Your task to perform on an android device: Clear the cart on amazon.com. Image 0: 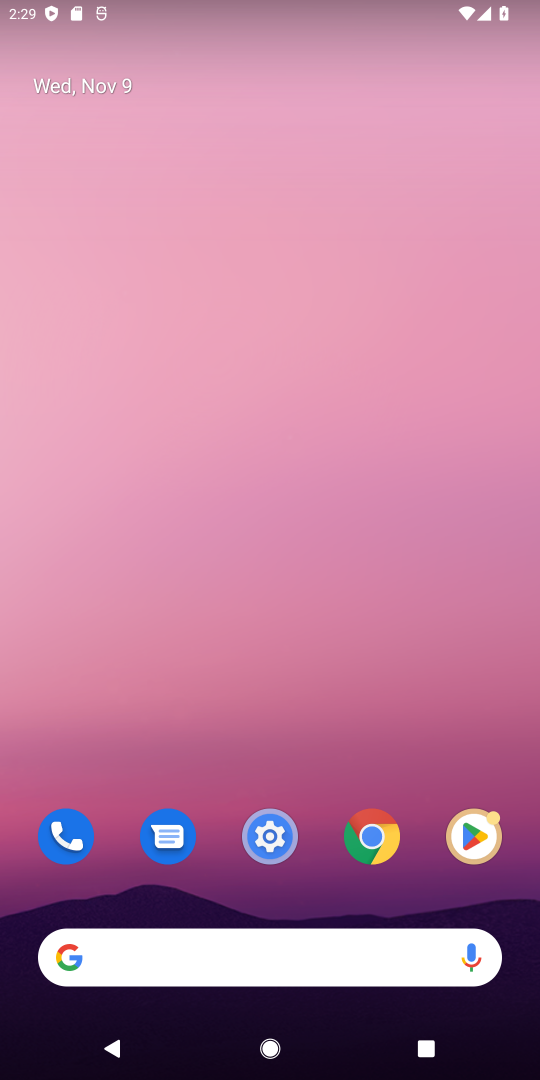
Step 0: click (373, 831)
Your task to perform on an android device: Clear the cart on amazon.com. Image 1: 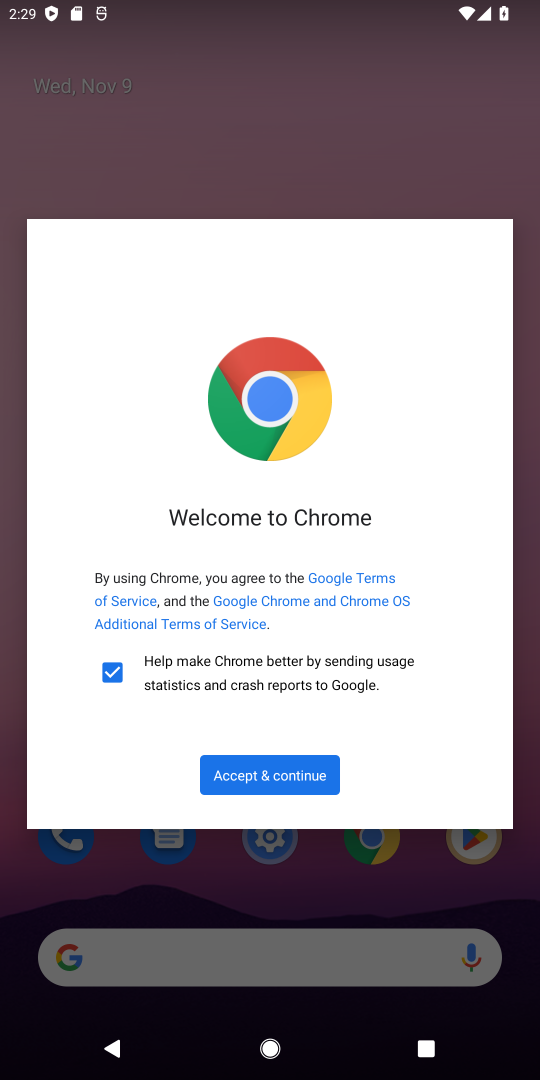
Step 1: click (291, 785)
Your task to perform on an android device: Clear the cart on amazon.com. Image 2: 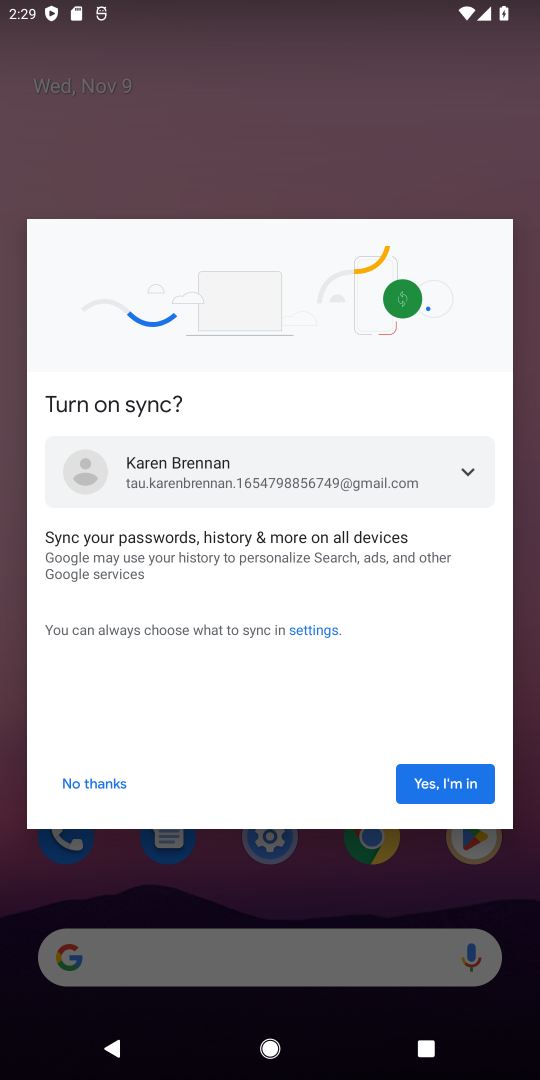
Step 2: click (415, 787)
Your task to perform on an android device: Clear the cart on amazon.com. Image 3: 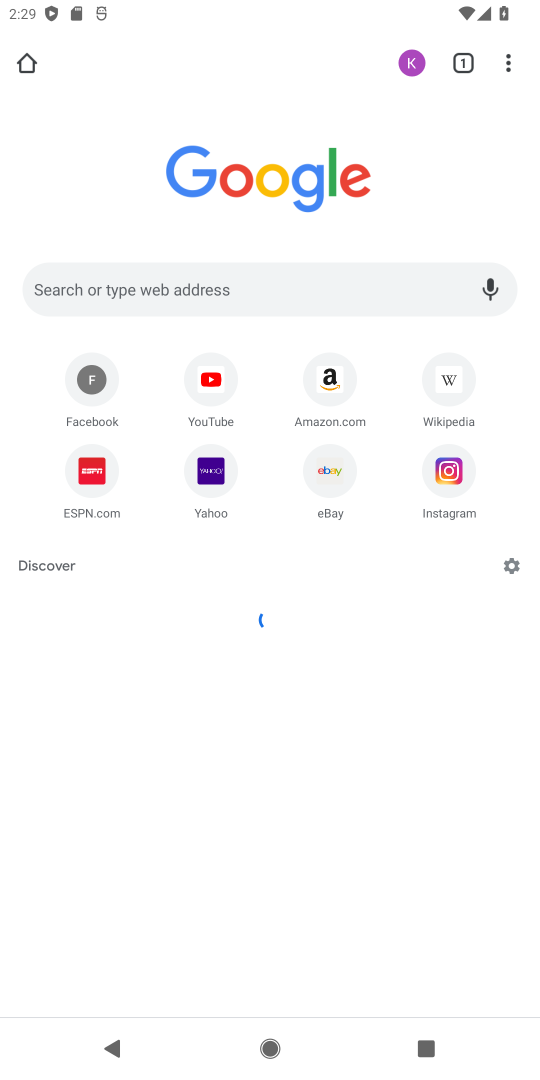
Step 3: click (234, 275)
Your task to perform on an android device: Clear the cart on amazon.com. Image 4: 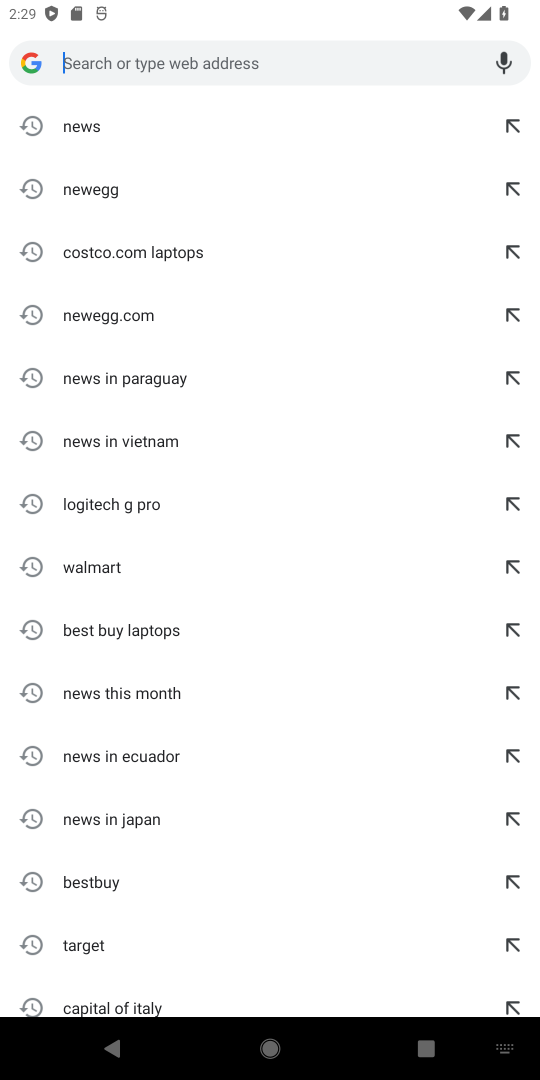
Step 4: type "amazon"
Your task to perform on an android device: Clear the cart on amazon.com. Image 5: 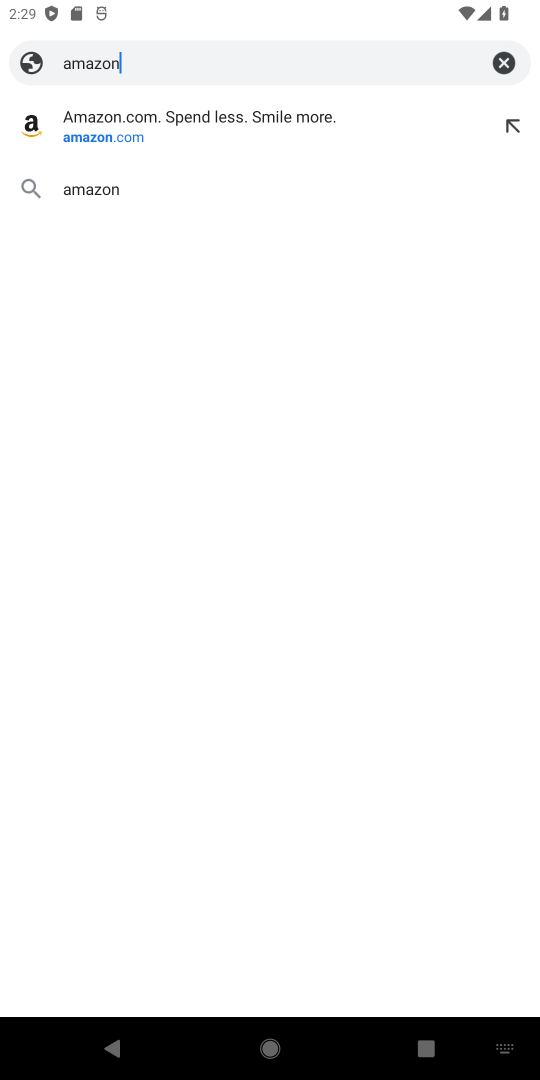
Step 5: click (128, 142)
Your task to perform on an android device: Clear the cart on amazon.com. Image 6: 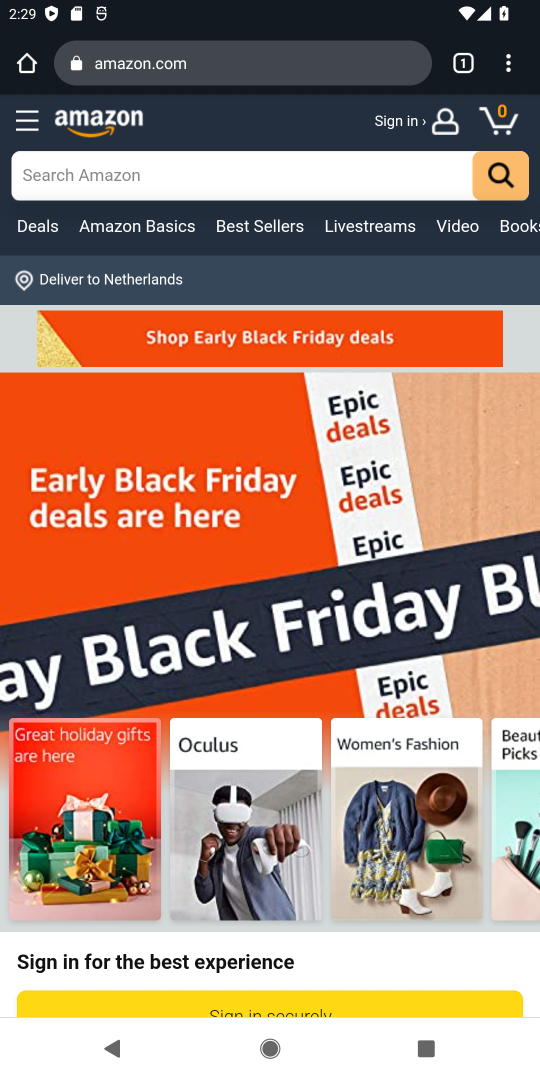
Step 6: click (510, 118)
Your task to perform on an android device: Clear the cart on amazon.com. Image 7: 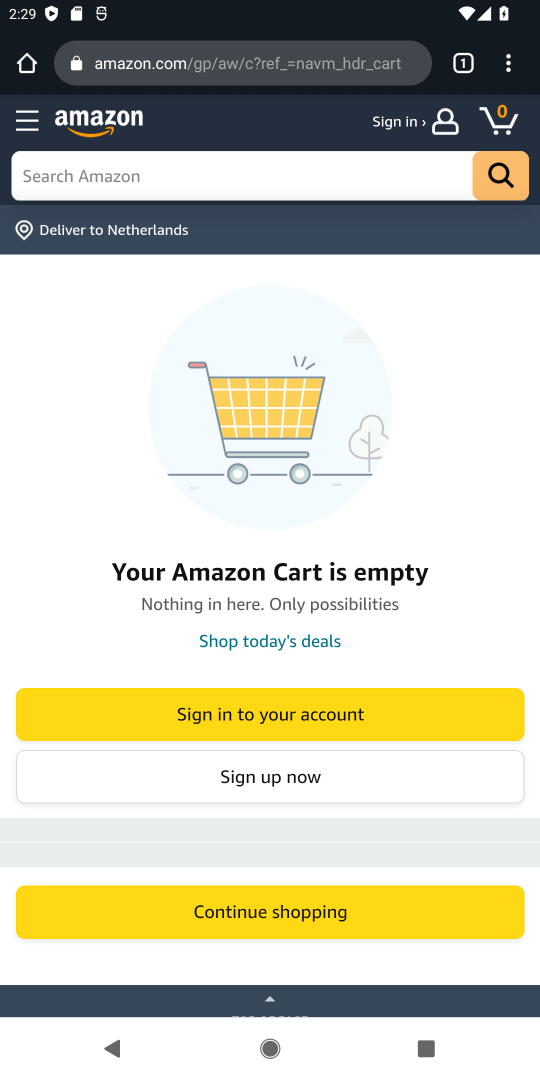
Step 7: task complete